Your task to perform on an android device: open app "Spotify: Music and Podcasts" (install if not already installed) Image 0: 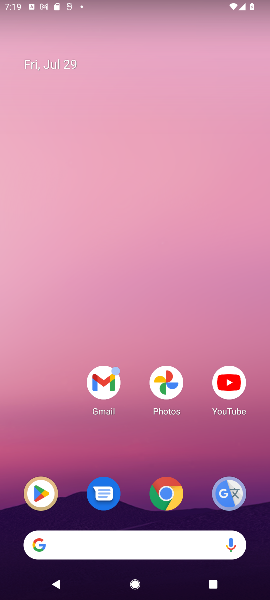
Step 0: drag from (149, 577) to (154, 0)
Your task to perform on an android device: open app "Spotify: Music and Podcasts" (install if not already installed) Image 1: 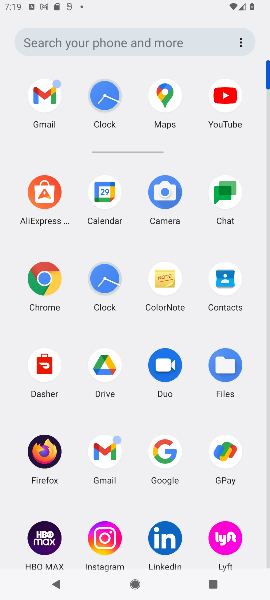
Step 1: drag from (196, 521) to (192, 156)
Your task to perform on an android device: open app "Spotify: Music and Podcasts" (install if not already installed) Image 2: 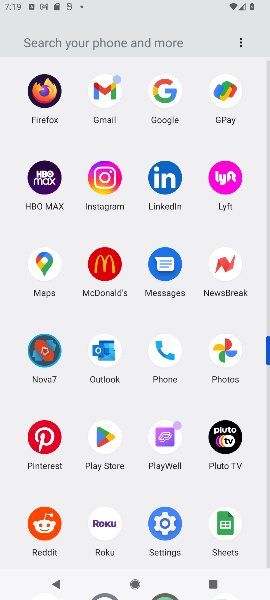
Step 2: click (107, 442)
Your task to perform on an android device: open app "Spotify: Music and Podcasts" (install if not already installed) Image 3: 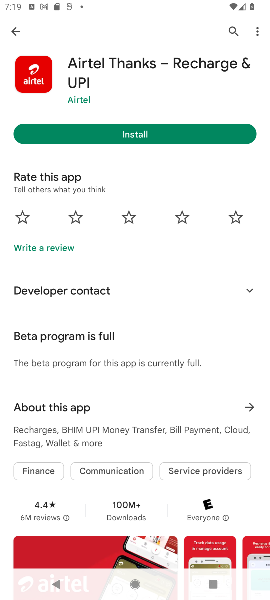
Step 3: click (230, 30)
Your task to perform on an android device: open app "Spotify: Music and Podcasts" (install if not already installed) Image 4: 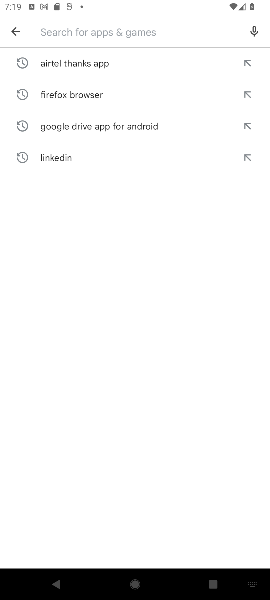
Step 4: type "Spotify: Music and Podcasts"
Your task to perform on an android device: open app "Spotify: Music and Podcasts" (install if not already installed) Image 5: 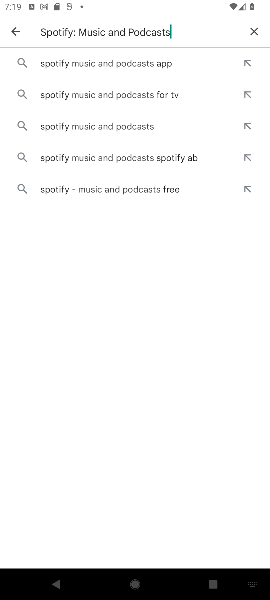
Step 5: click (104, 62)
Your task to perform on an android device: open app "Spotify: Music and Podcasts" (install if not already installed) Image 6: 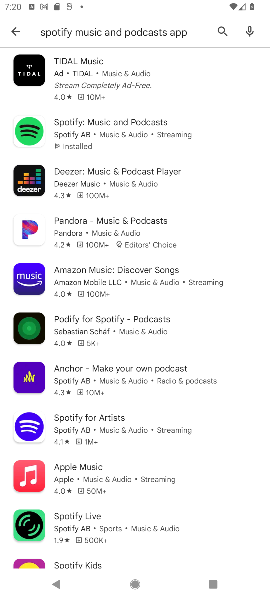
Step 6: task complete